Your task to perform on an android device: toggle data saver in the chrome app Image 0: 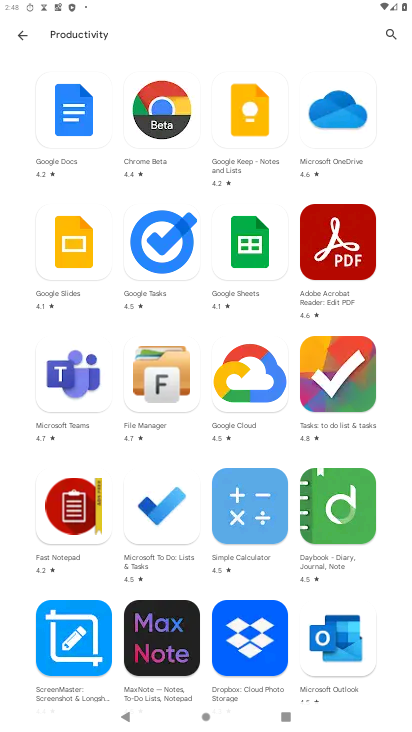
Step 0: press home button
Your task to perform on an android device: toggle data saver in the chrome app Image 1: 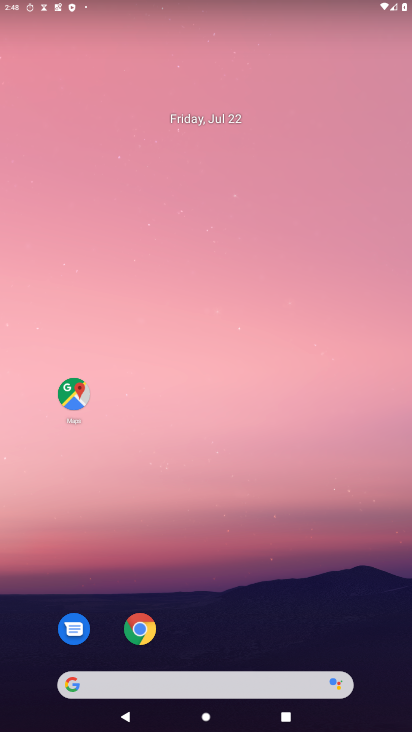
Step 1: drag from (234, 687) to (197, 14)
Your task to perform on an android device: toggle data saver in the chrome app Image 2: 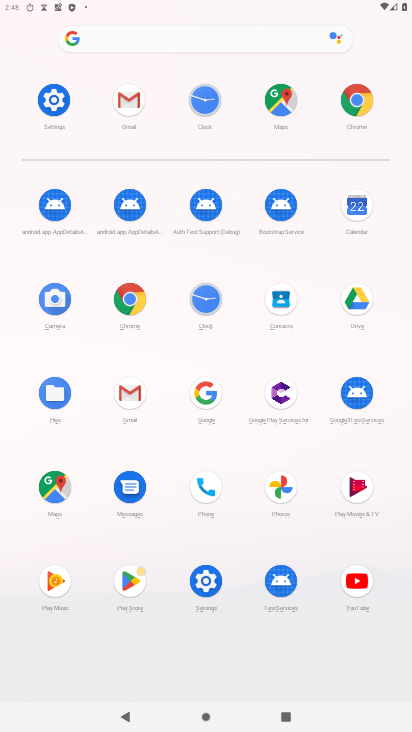
Step 2: click (130, 288)
Your task to perform on an android device: toggle data saver in the chrome app Image 3: 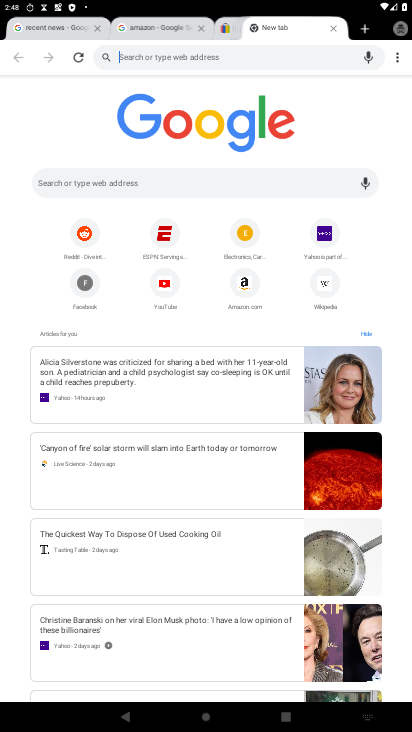
Step 3: drag from (400, 51) to (291, 270)
Your task to perform on an android device: toggle data saver in the chrome app Image 4: 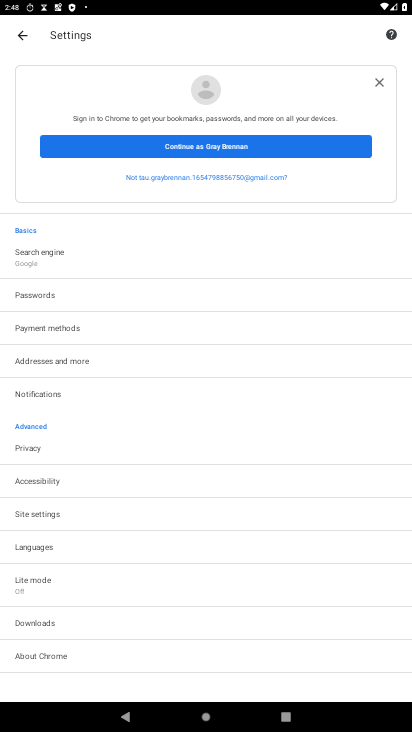
Step 4: click (62, 574)
Your task to perform on an android device: toggle data saver in the chrome app Image 5: 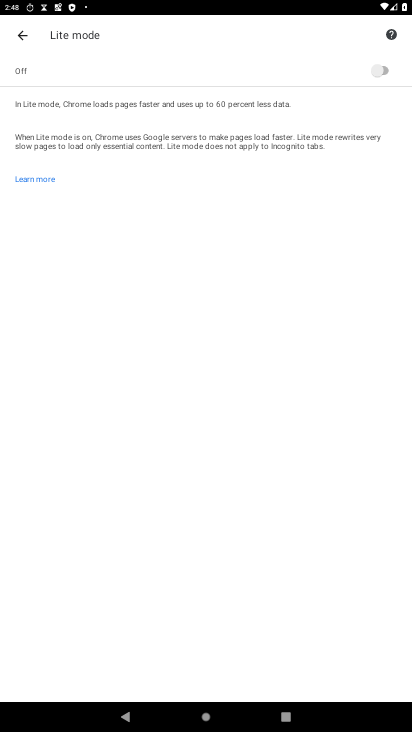
Step 5: click (390, 64)
Your task to perform on an android device: toggle data saver in the chrome app Image 6: 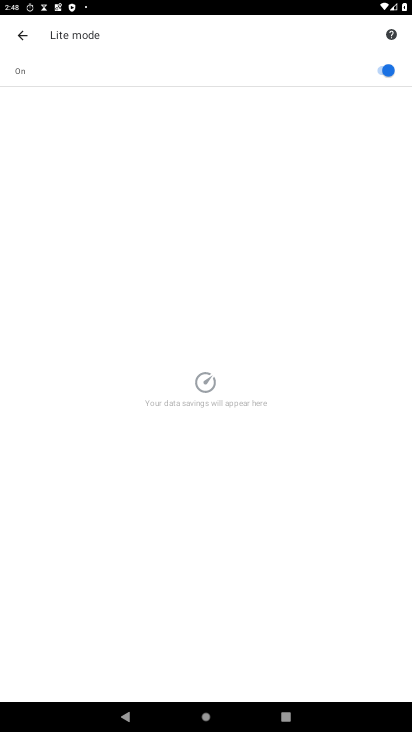
Step 6: task complete